Your task to perform on an android device: open app "NewsBreak: Local News & Alerts" (install if not already installed) and enter user name: "switch@outlook.com" and password: "fabrics" Image 0: 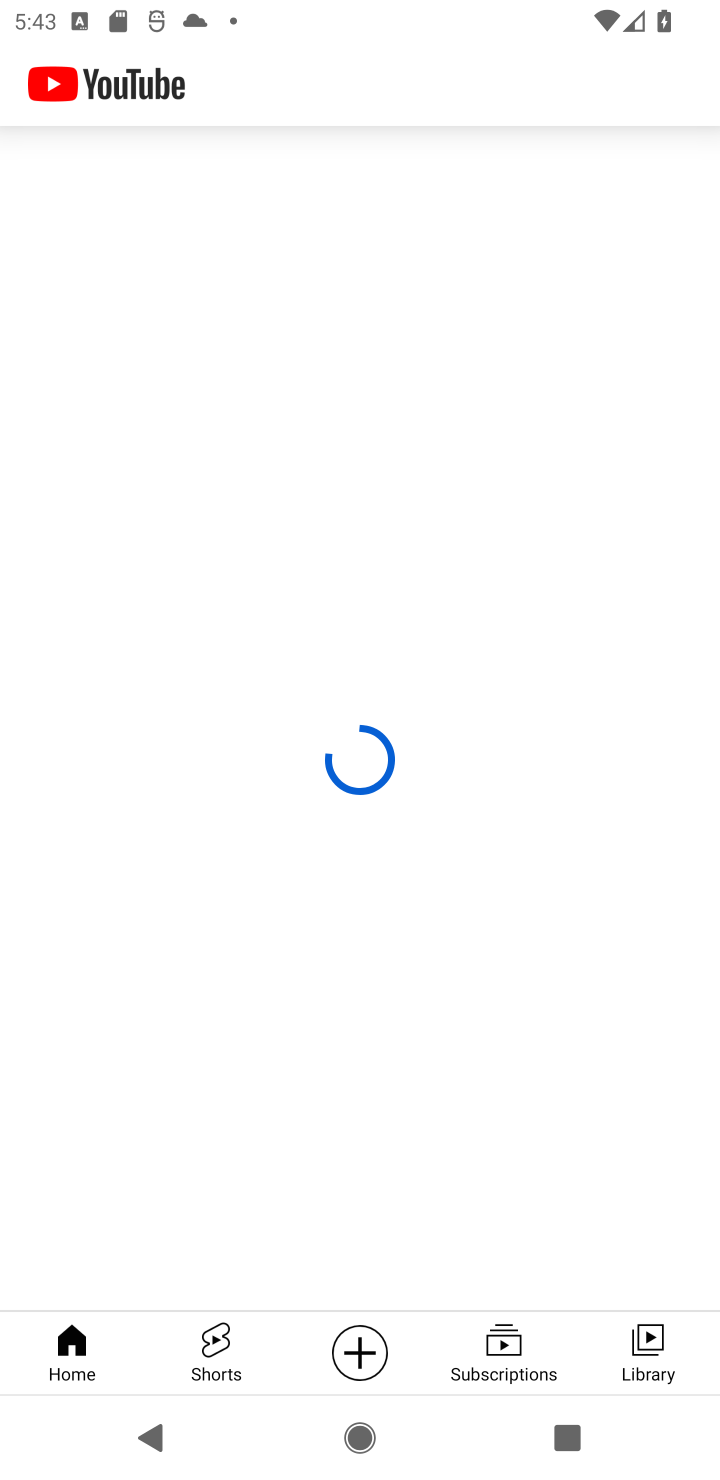
Step 0: press home button
Your task to perform on an android device: open app "NewsBreak: Local News & Alerts" (install if not already installed) and enter user name: "switch@outlook.com" and password: "fabrics" Image 1: 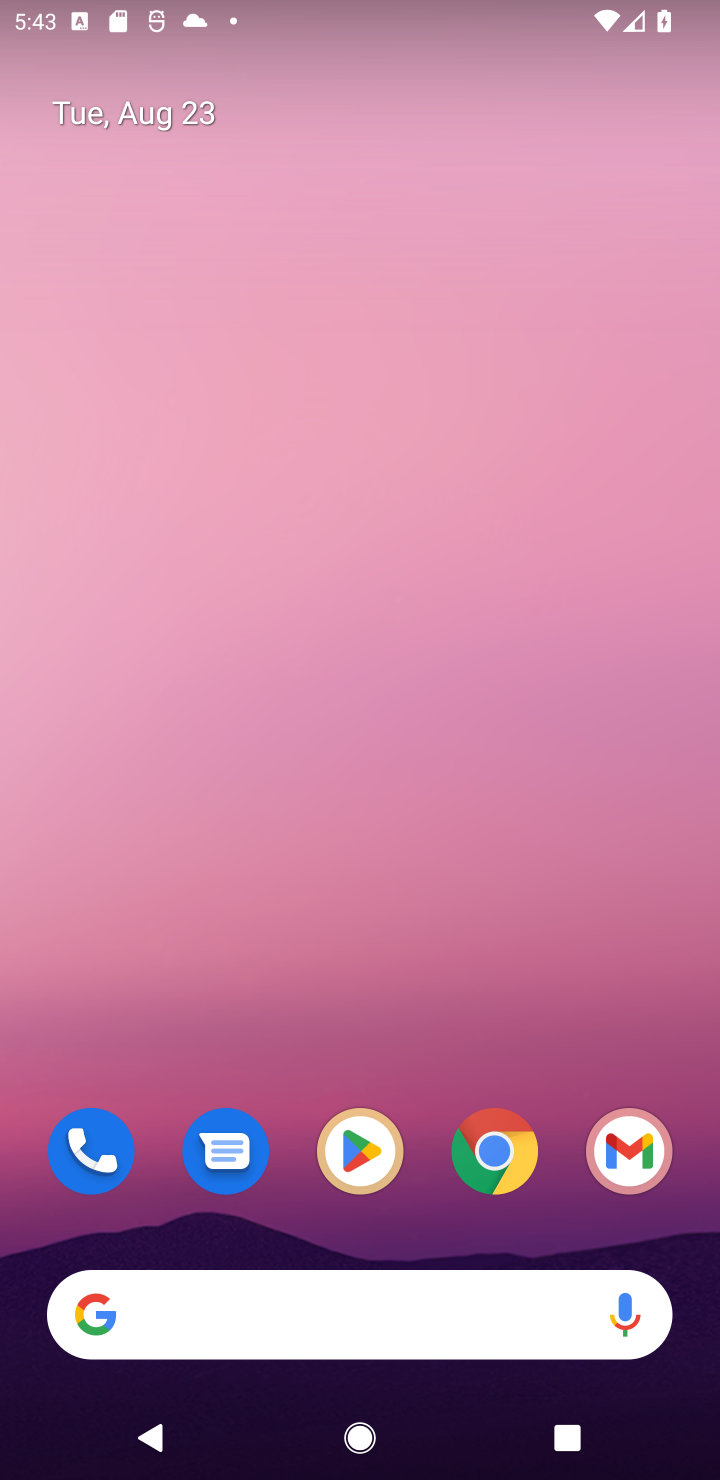
Step 1: click (362, 1131)
Your task to perform on an android device: open app "NewsBreak: Local News & Alerts" (install if not already installed) and enter user name: "switch@outlook.com" and password: "fabrics" Image 2: 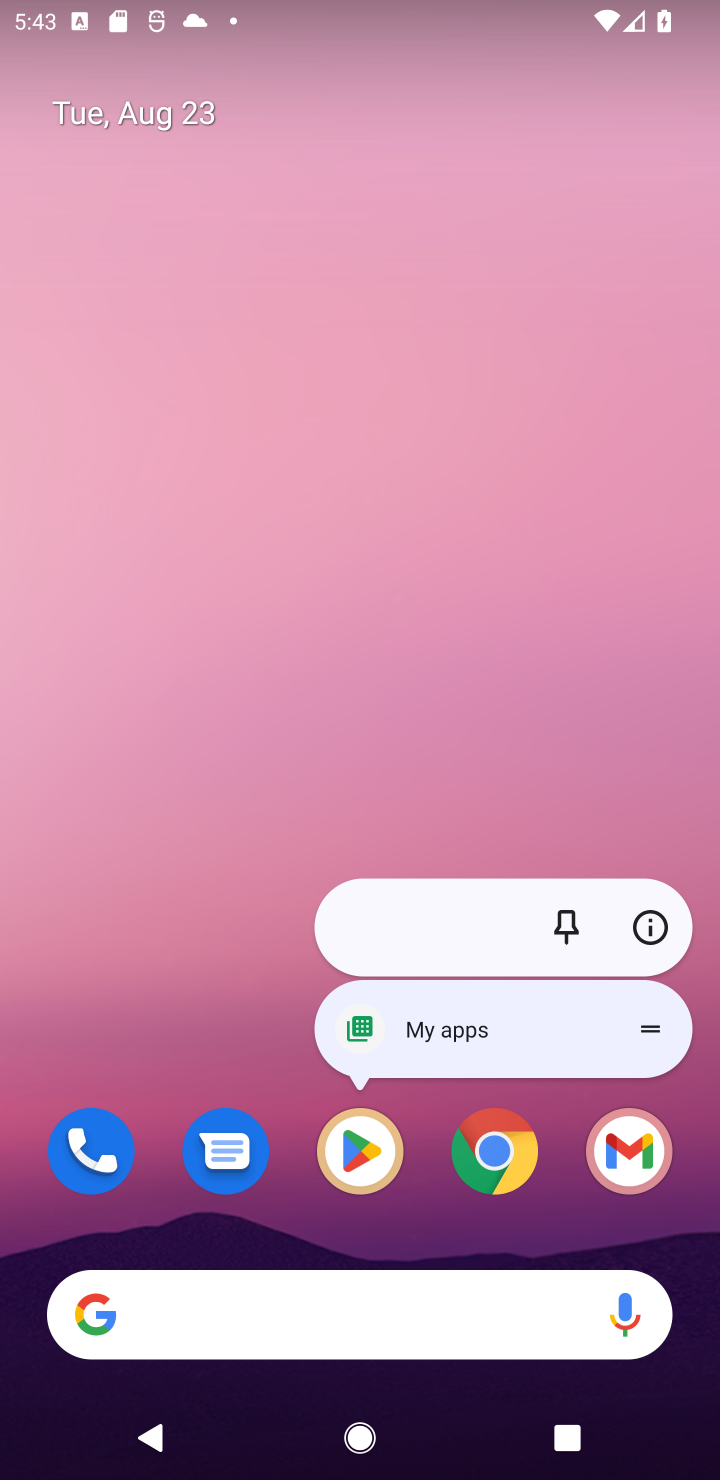
Step 2: click (362, 1137)
Your task to perform on an android device: open app "NewsBreak: Local News & Alerts" (install if not already installed) and enter user name: "switch@outlook.com" and password: "fabrics" Image 3: 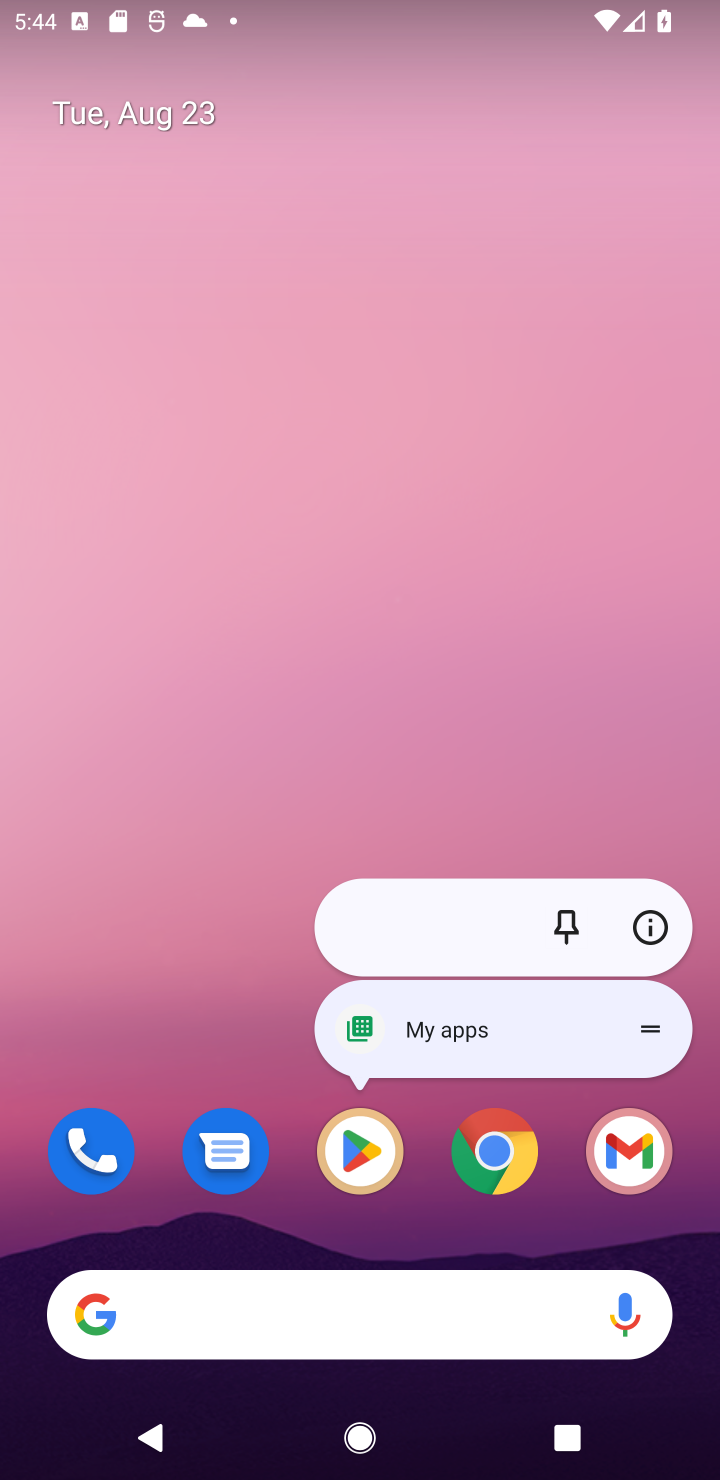
Step 3: click (352, 1151)
Your task to perform on an android device: open app "NewsBreak: Local News & Alerts" (install if not already installed) and enter user name: "switch@outlook.com" and password: "fabrics" Image 4: 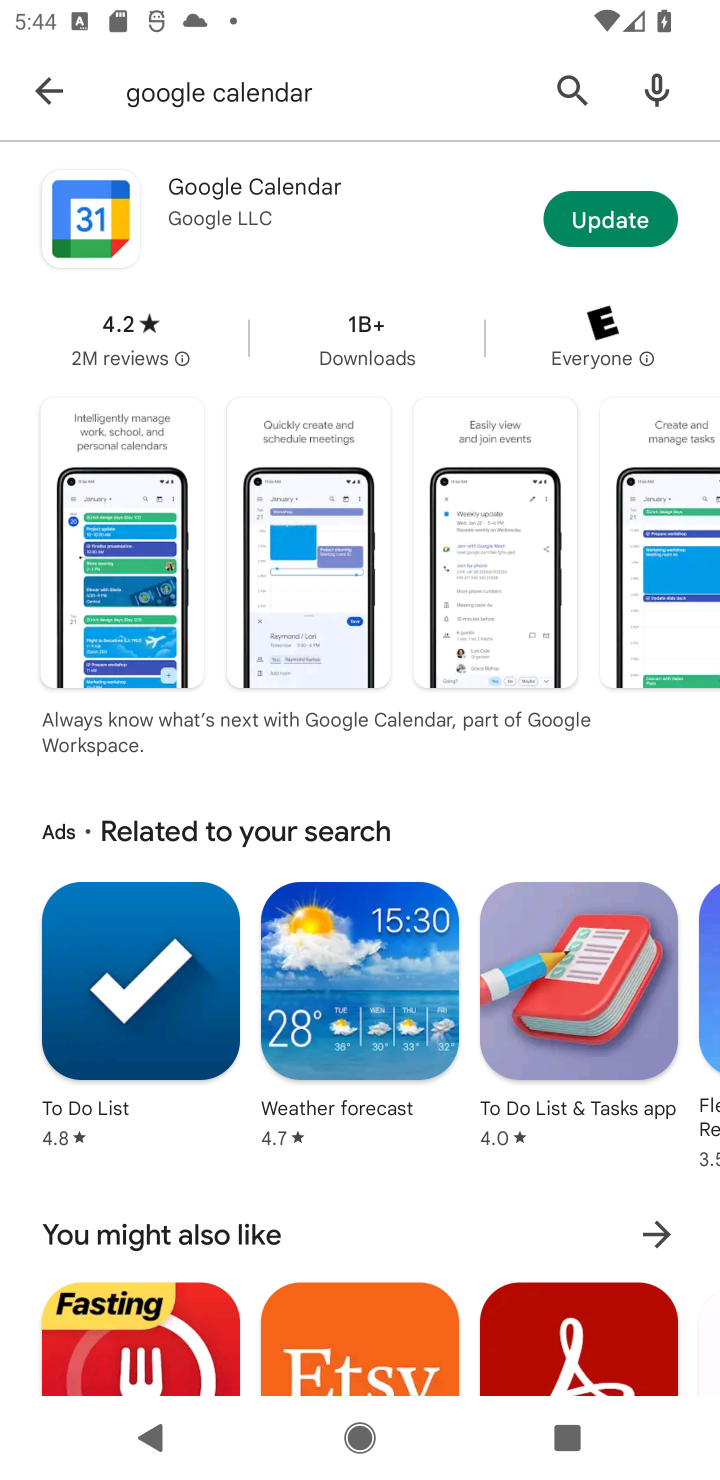
Step 4: click (565, 80)
Your task to perform on an android device: open app "NewsBreak: Local News & Alerts" (install if not already installed) and enter user name: "switch@outlook.com" and password: "fabrics" Image 5: 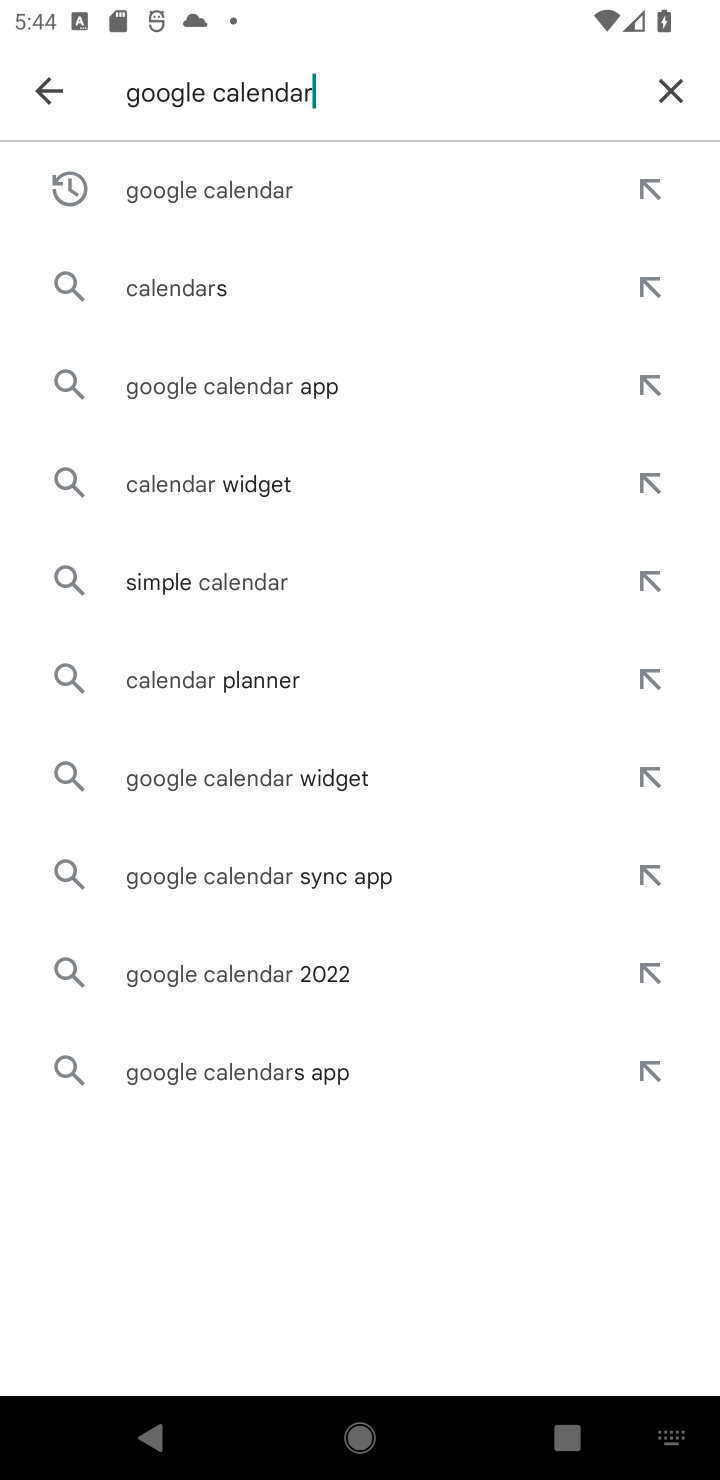
Step 5: click (665, 83)
Your task to perform on an android device: open app "NewsBreak: Local News & Alerts" (install if not already installed) and enter user name: "switch@outlook.com" and password: "fabrics" Image 6: 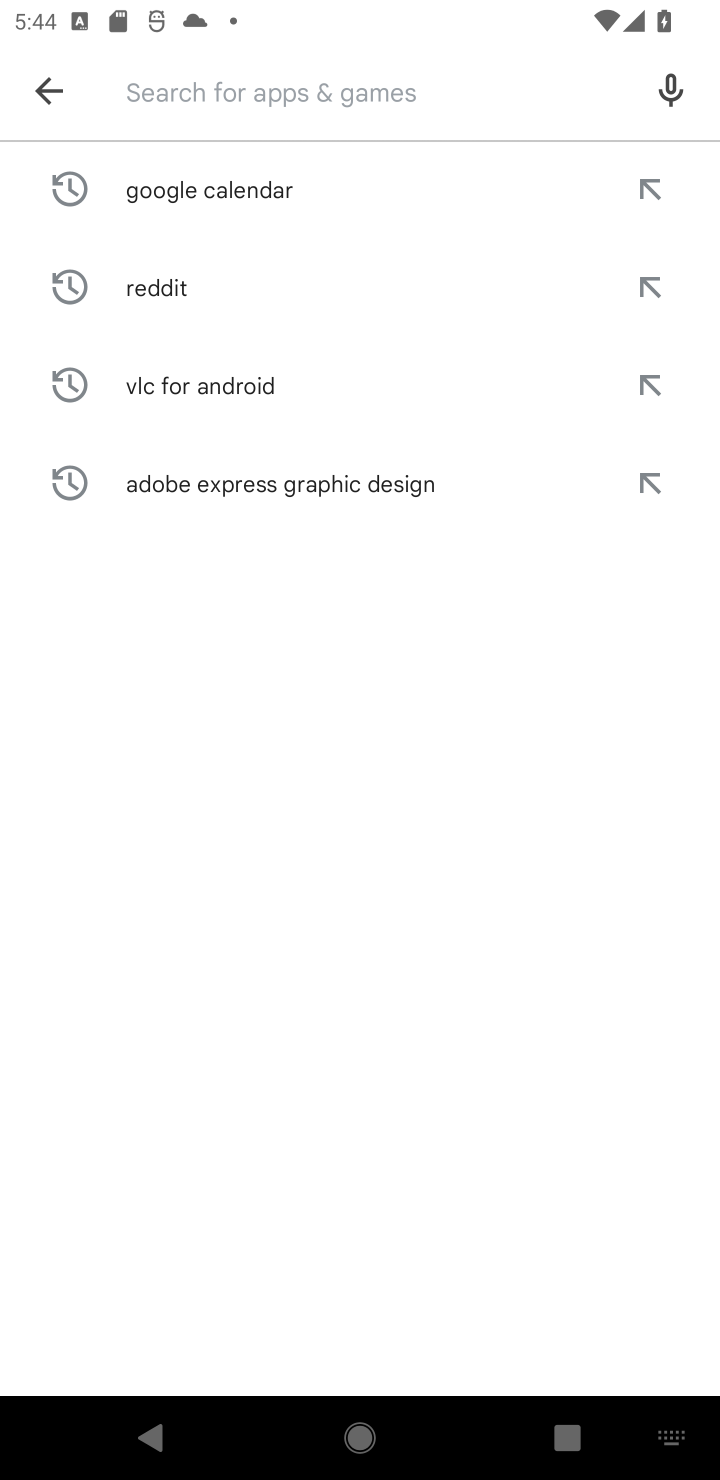
Step 6: type "NewsBreak: Local News & Alerts"
Your task to perform on an android device: open app "NewsBreak: Local News & Alerts" (install if not already installed) and enter user name: "switch@outlook.com" and password: "fabrics" Image 7: 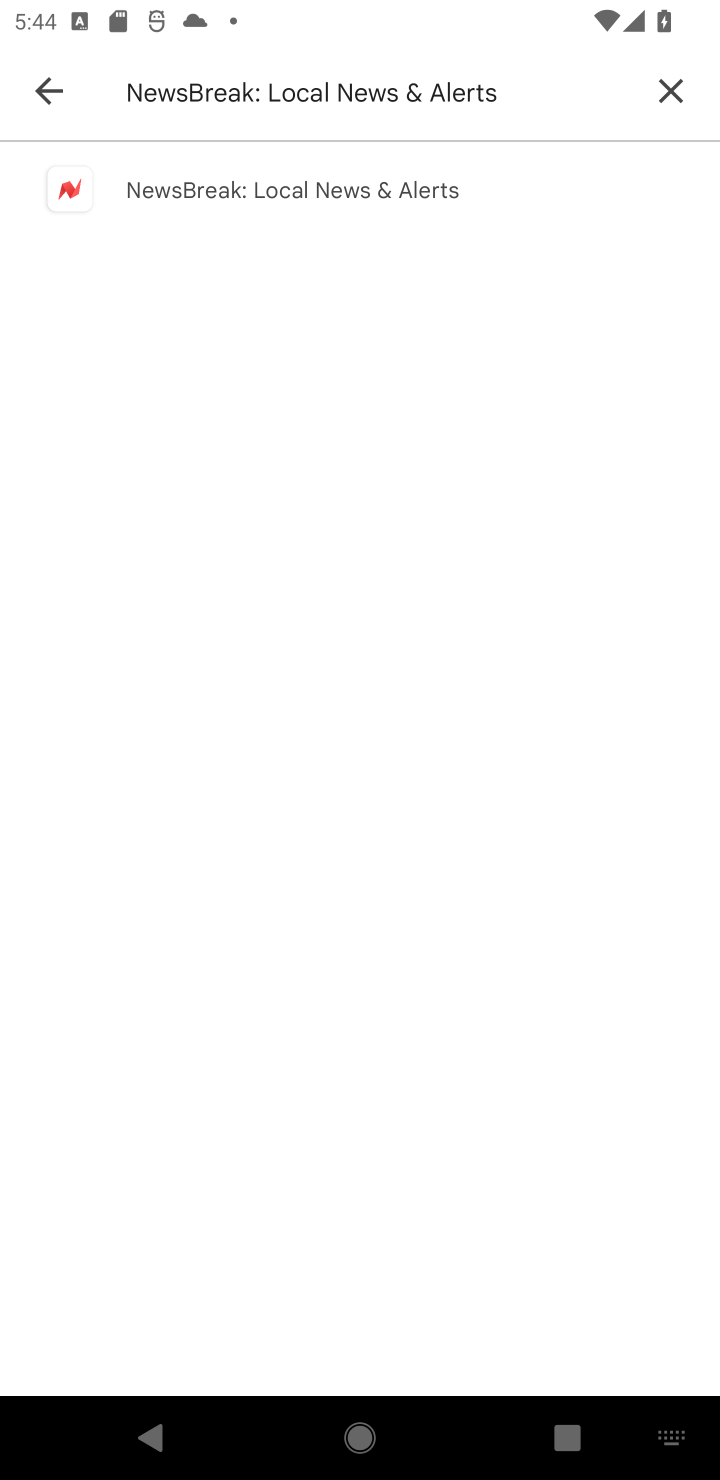
Step 7: click (213, 177)
Your task to perform on an android device: open app "NewsBreak: Local News & Alerts" (install if not already installed) and enter user name: "switch@outlook.com" and password: "fabrics" Image 8: 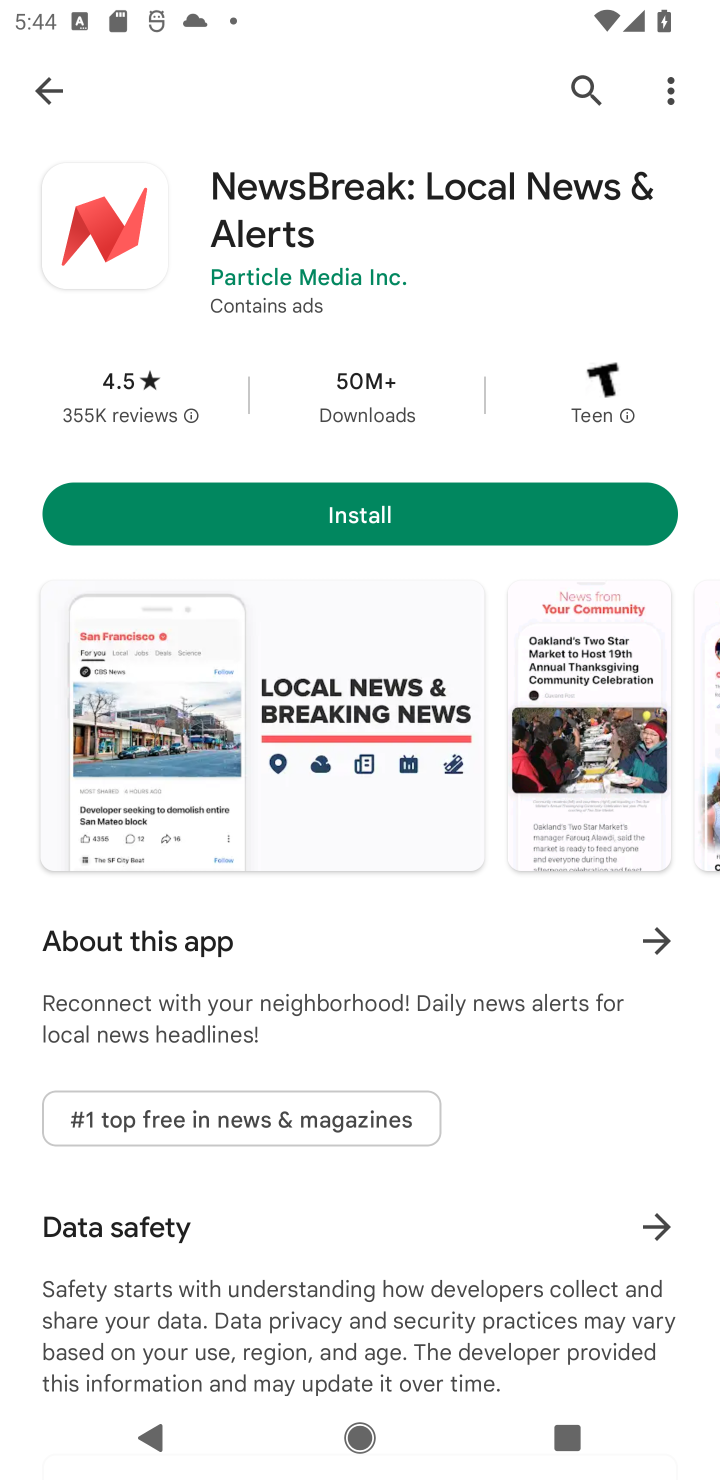
Step 8: click (451, 508)
Your task to perform on an android device: open app "NewsBreak: Local News & Alerts" (install if not already installed) and enter user name: "switch@outlook.com" and password: "fabrics" Image 9: 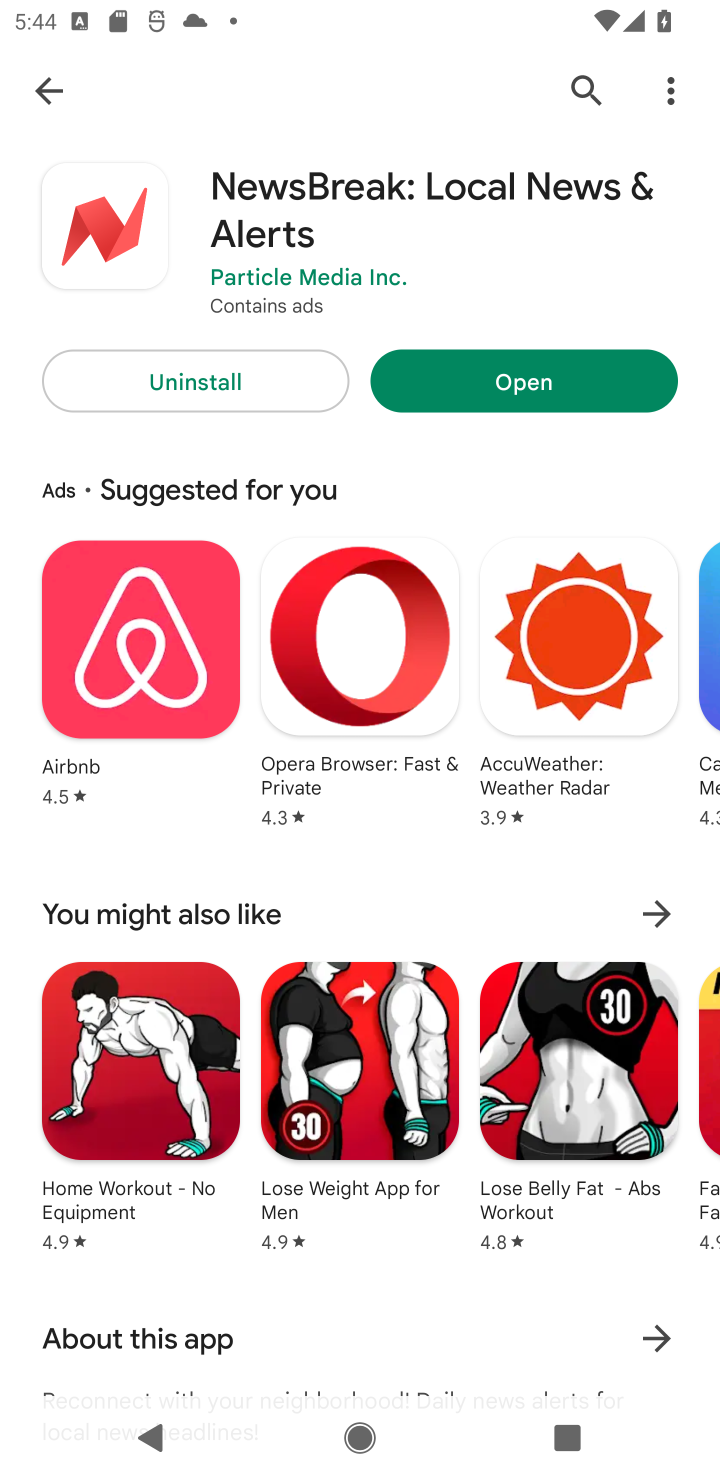
Step 9: click (573, 381)
Your task to perform on an android device: open app "NewsBreak: Local News & Alerts" (install if not already installed) and enter user name: "switch@outlook.com" and password: "fabrics" Image 10: 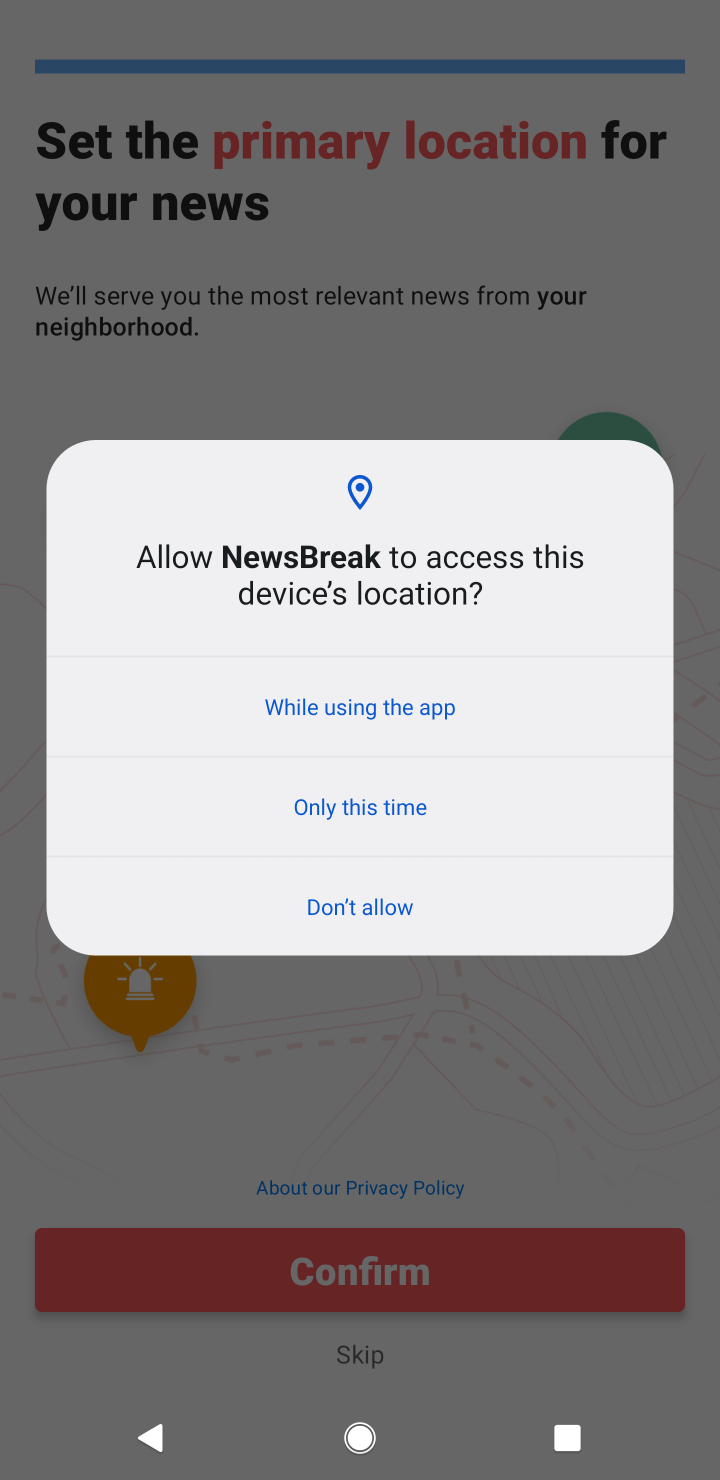
Step 10: click (410, 794)
Your task to perform on an android device: open app "NewsBreak: Local News & Alerts" (install if not already installed) and enter user name: "switch@outlook.com" and password: "fabrics" Image 11: 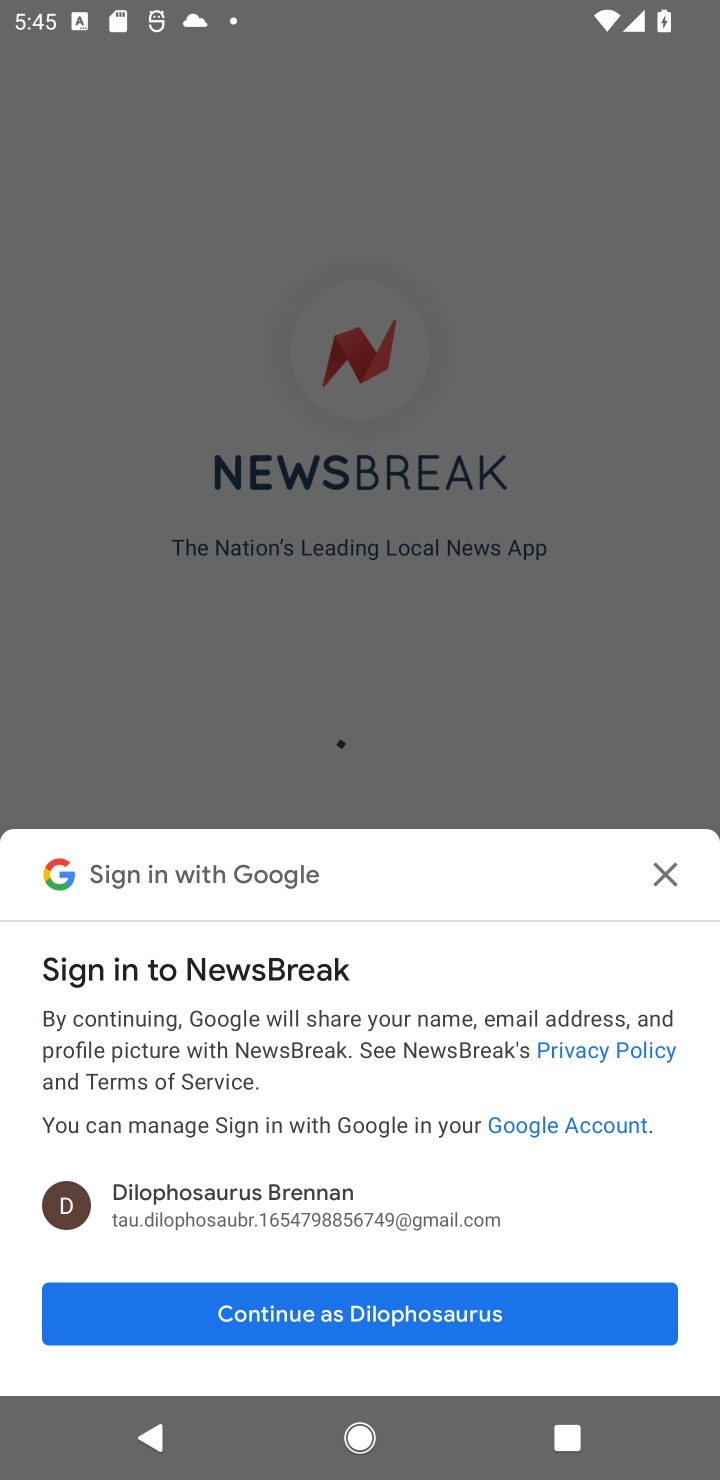
Step 11: task complete